Your task to perform on an android device: Open Google Chrome and open the bookmarks view Image 0: 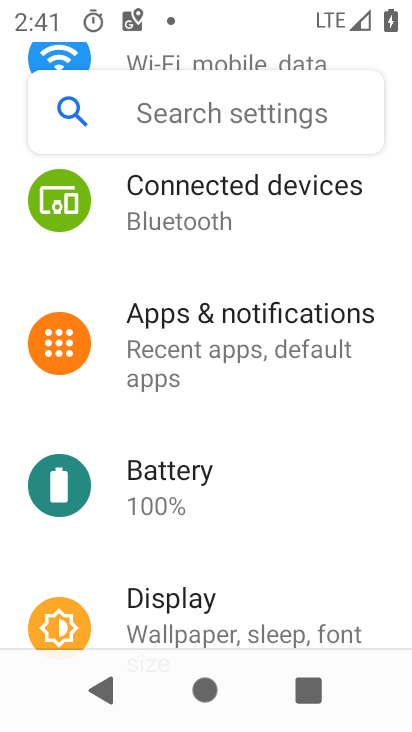
Step 0: press home button
Your task to perform on an android device: Open Google Chrome and open the bookmarks view Image 1: 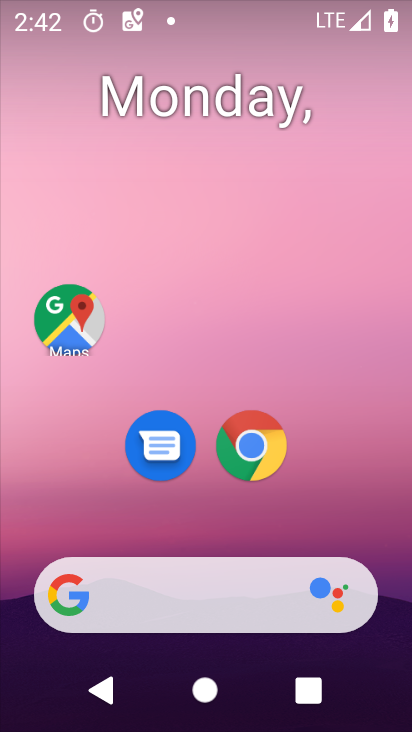
Step 1: click (287, 443)
Your task to perform on an android device: Open Google Chrome and open the bookmarks view Image 2: 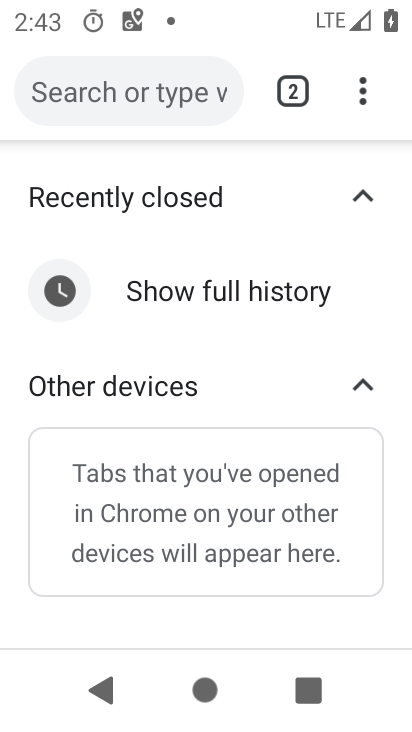
Step 2: task complete